Your task to perform on an android device: turn on data saver in the chrome app Image 0: 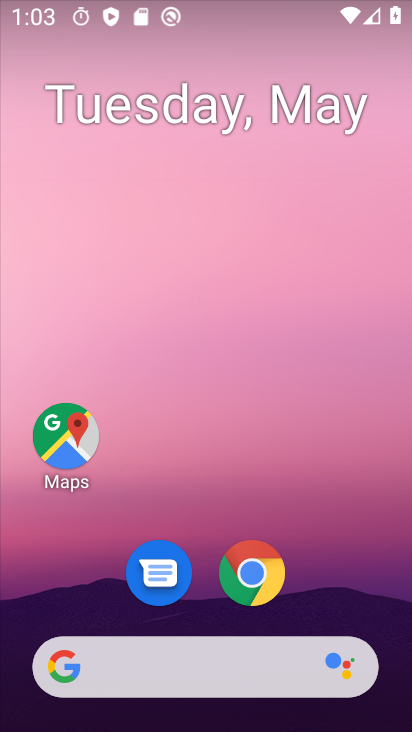
Step 0: drag from (338, 574) to (331, 100)
Your task to perform on an android device: turn on data saver in the chrome app Image 1: 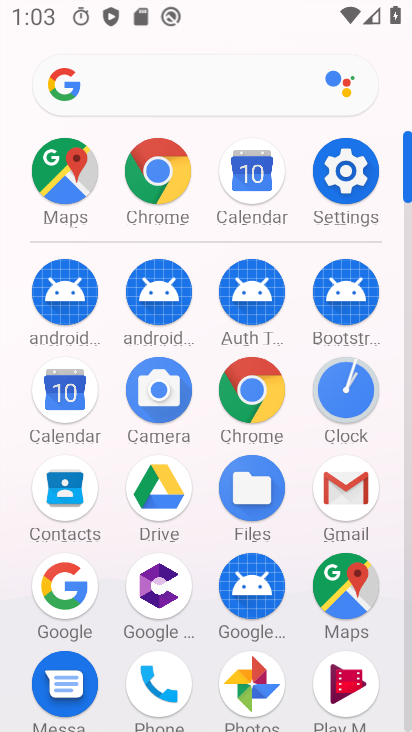
Step 1: click (146, 179)
Your task to perform on an android device: turn on data saver in the chrome app Image 2: 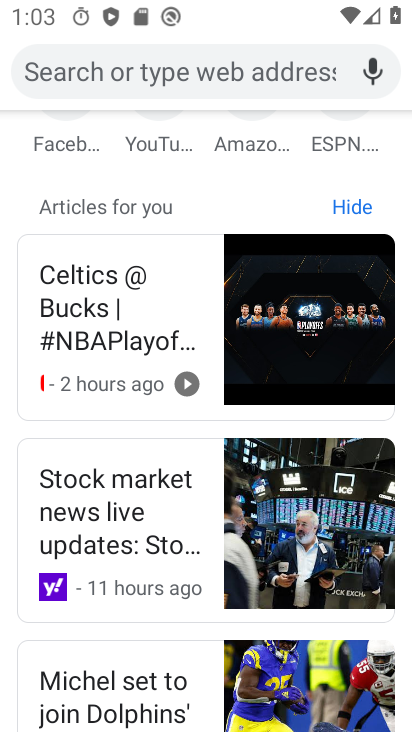
Step 2: drag from (214, 192) to (239, 646)
Your task to perform on an android device: turn on data saver in the chrome app Image 3: 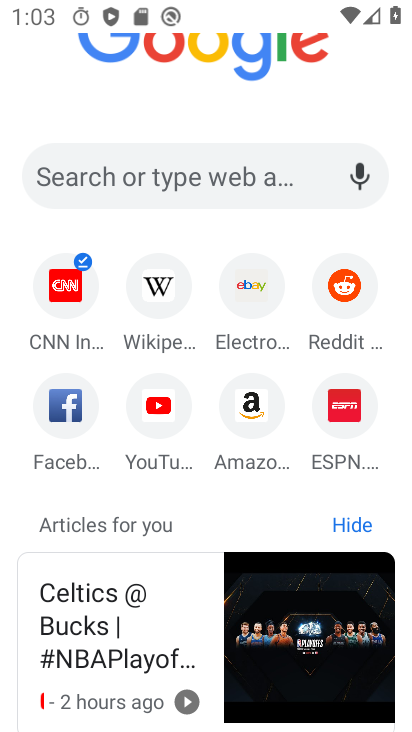
Step 3: drag from (96, 270) to (137, 564)
Your task to perform on an android device: turn on data saver in the chrome app Image 4: 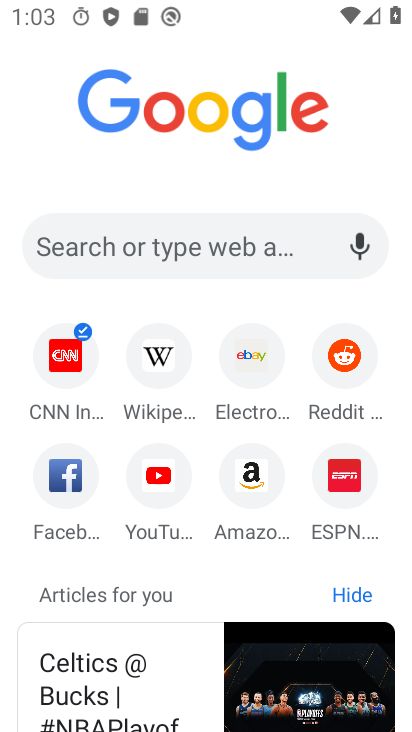
Step 4: drag from (339, 266) to (361, 507)
Your task to perform on an android device: turn on data saver in the chrome app Image 5: 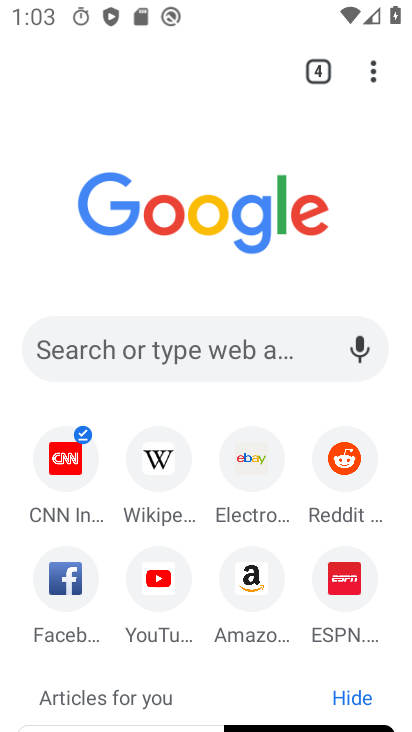
Step 5: drag from (364, 73) to (202, 606)
Your task to perform on an android device: turn on data saver in the chrome app Image 6: 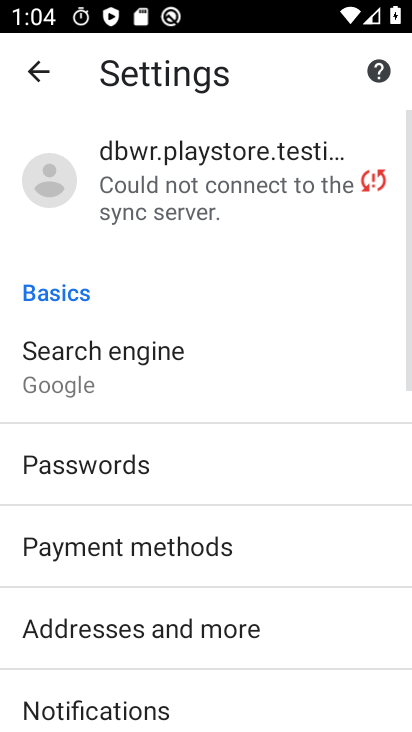
Step 6: drag from (203, 599) to (117, 202)
Your task to perform on an android device: turn on data saver in the chrome app Image 7: 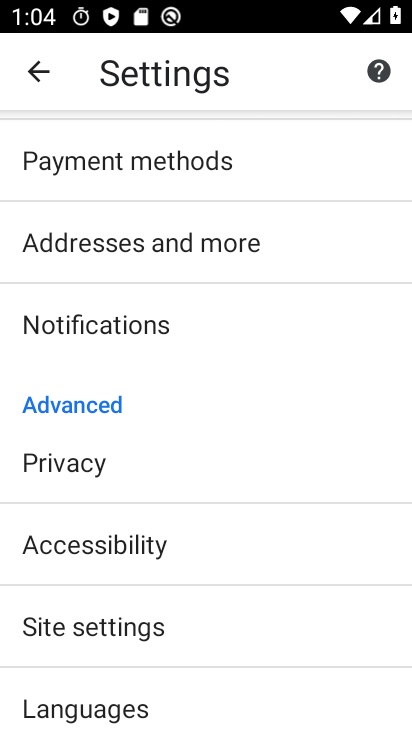
Step 7: drag from (166, 614) to (125, 418)
Your task to perform on an android device: turn on data saver in the chrome app Image 8: 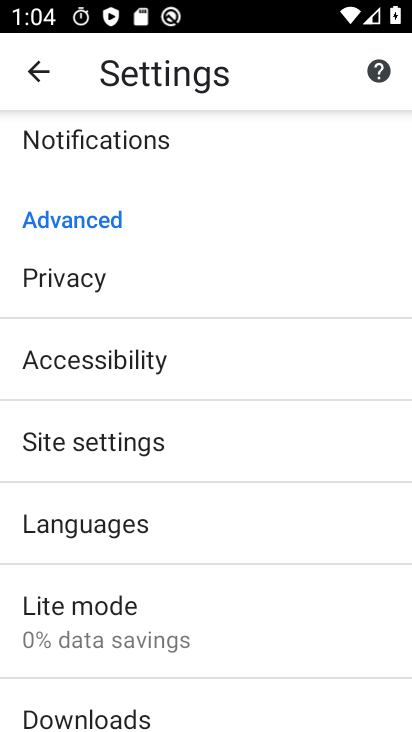
Step 8: click (147, 621)
Your task to perform on an android device: turn on data saver in the chrome app Image 9: 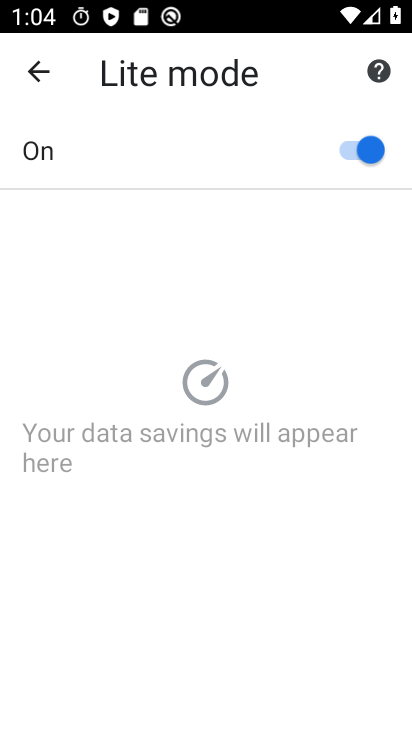
Step 9: task complete